Your task to perform on an android device: all mails in gmail Image 0: 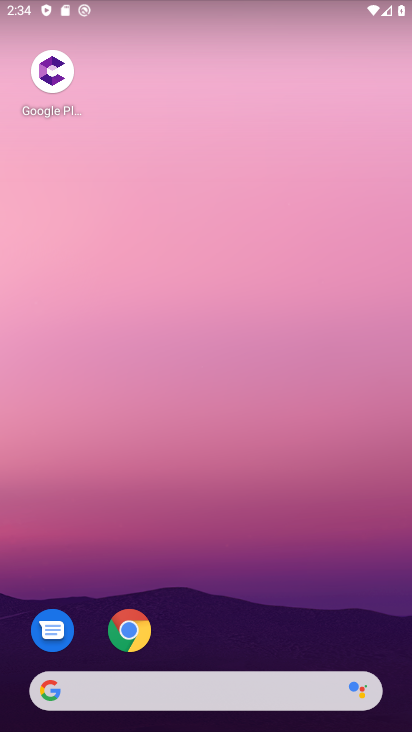
Step 0: drag from (191, 629) to (276, 123)
Your task to perform on an android device: all mails in gmail Image 1: 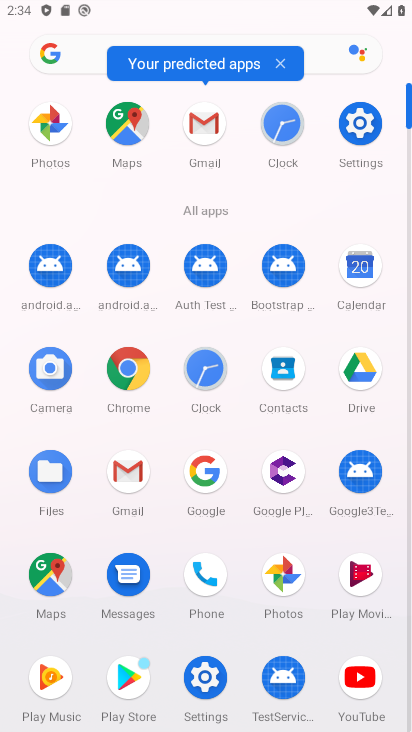
Step 1: click (201, 132)
Your task to perform on an android device: all mails in gmail Image 2: 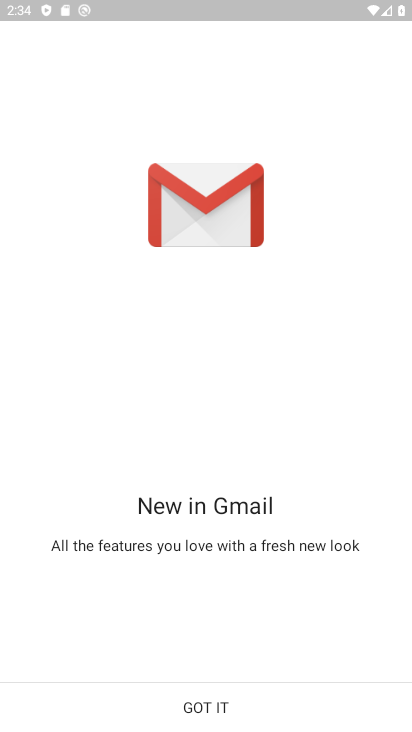
Step 2: click (206, 701)
Your task to perform on an android device: all mails in gmail Image 3: 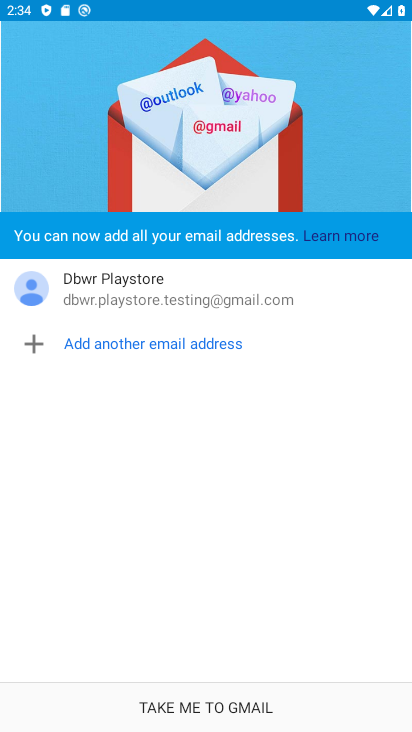
Step 3: click (216, 705)
Your task to perform on an android device: all mails in gmail Image 4: 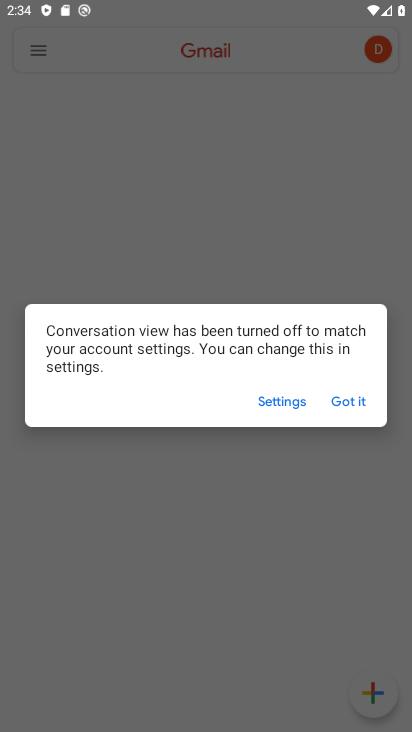
Step 4: click (348, 402)
Your task to perform on an android device: all mails in gmail Image 5: 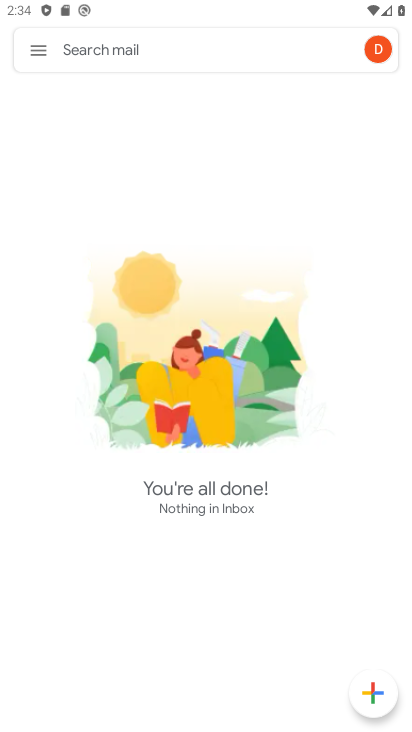
Step 5: click (38, 51)
Your task to perform on an android device: all mails in gmail Image 6: 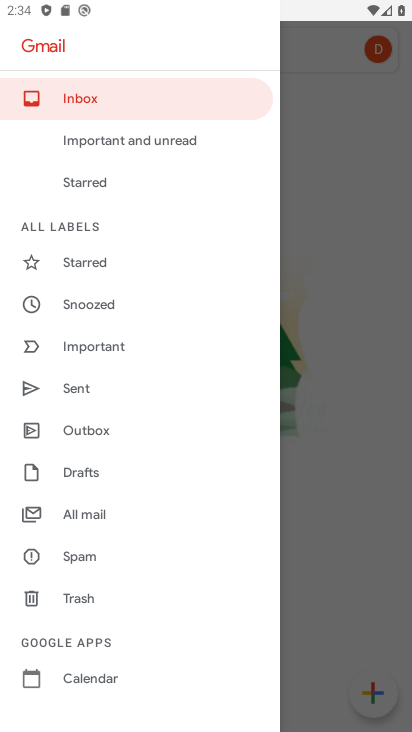
Step 6: click (96, 508)
Your task to perform on an android device: all mails in gmail Image 7: 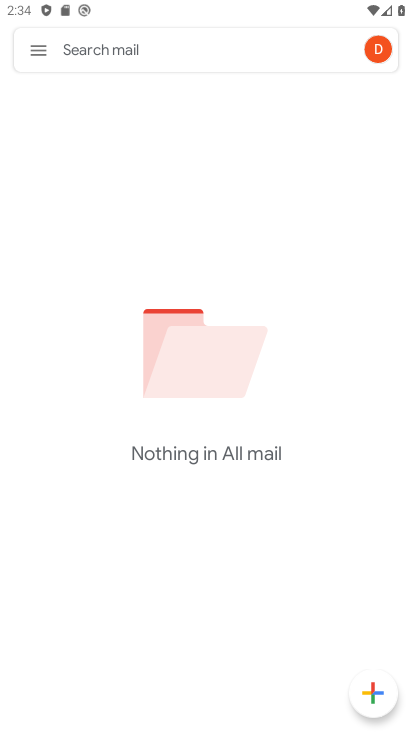
Step 7: task complete